Your task to perform on an android device: Open Amazon Image 0: 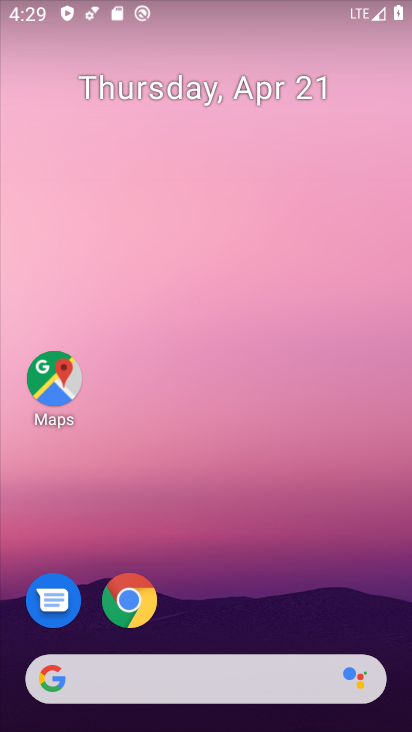
Step 0: click (126, 592)
Your task to perform on an android device: Open Amazon Image 1: 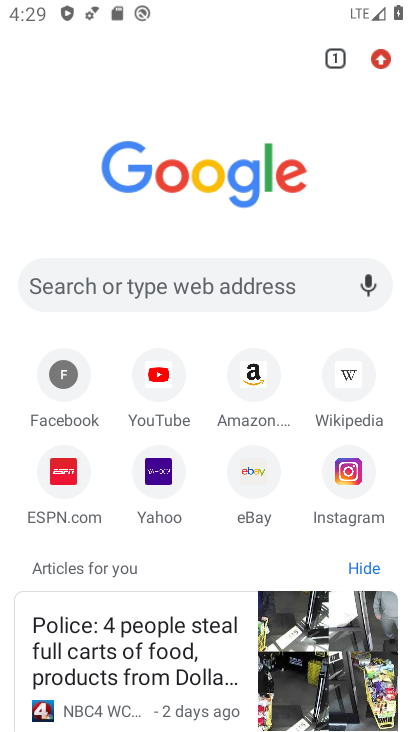
Step 1: click (244, 388)
Your task to perform on an android device: Open Amazon Image 2: 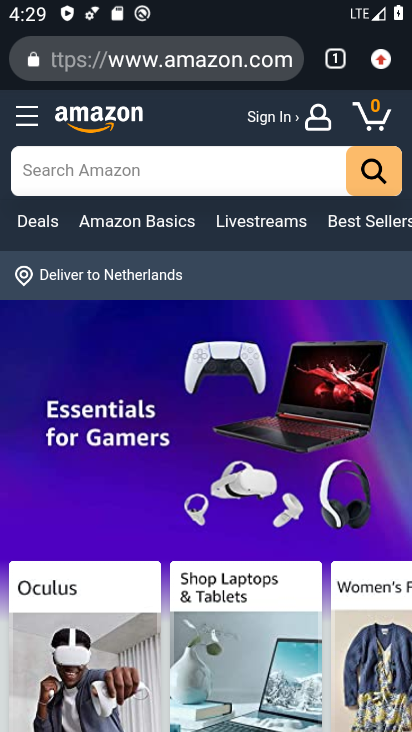
Step 2: task complete